Your task to perform on an android device: Open the stopwatch Image 0: 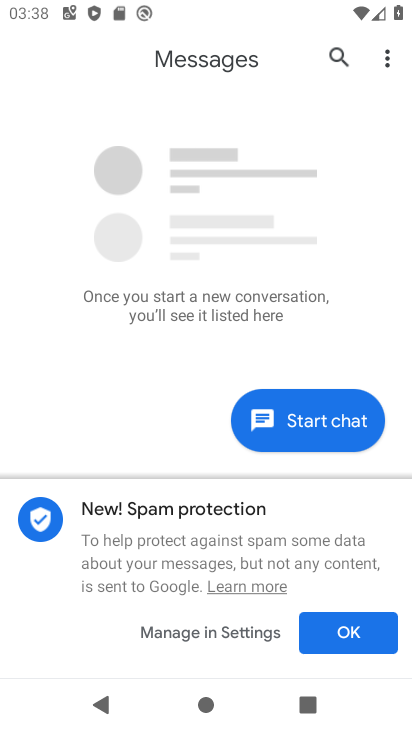
Step 0: press home button
Your task to perform on an android device: Open the stopwatch Image 1: 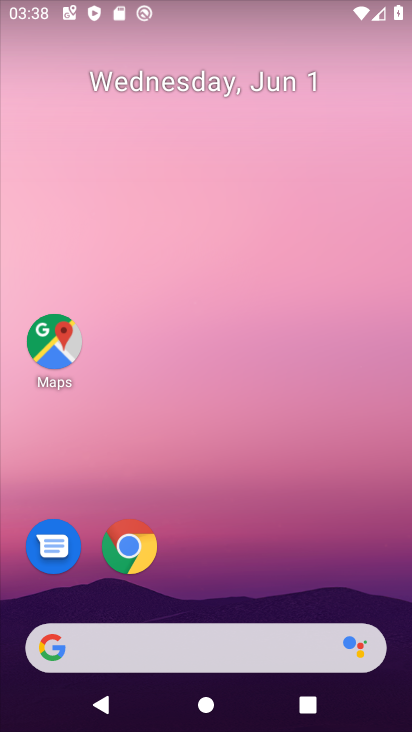
Step 1: drag from (244, 597) to (230, 31)
Your task to perform on an android device: Open the stopwatch Image 2: 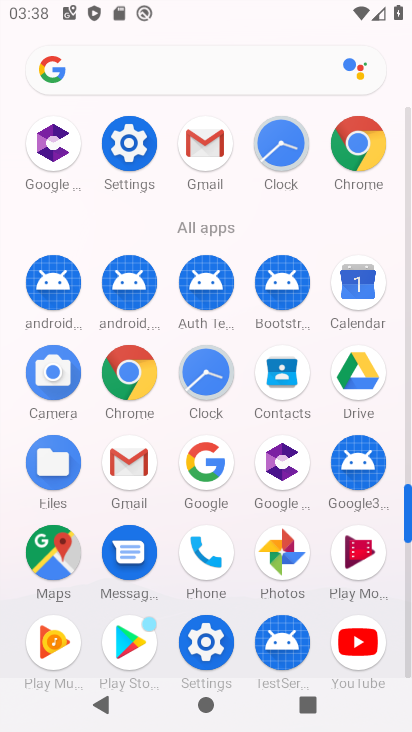
Step 2: click (211, 360)
Your task to perform on an android device: Open the stopwatch Image 3: 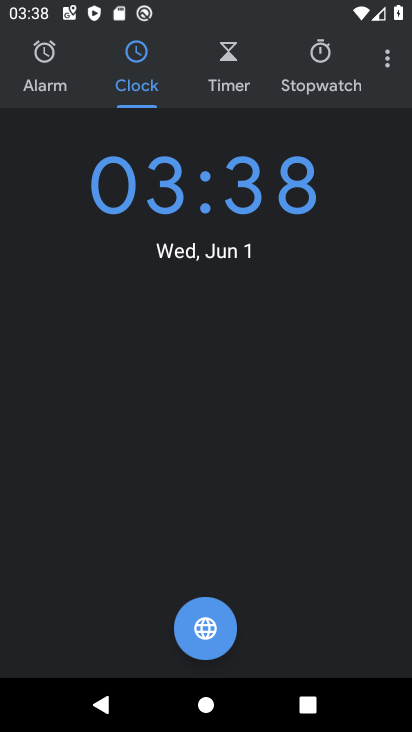
Step 3: click (318, 50)
Your task to perform on an android device: Open the stopwatch Image 4: 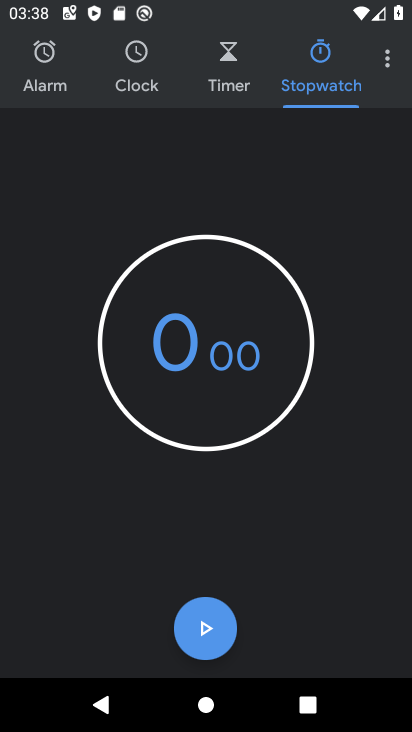
Step 4: task complete